Your task to perform on an android device: Open CNN.com Image 0: 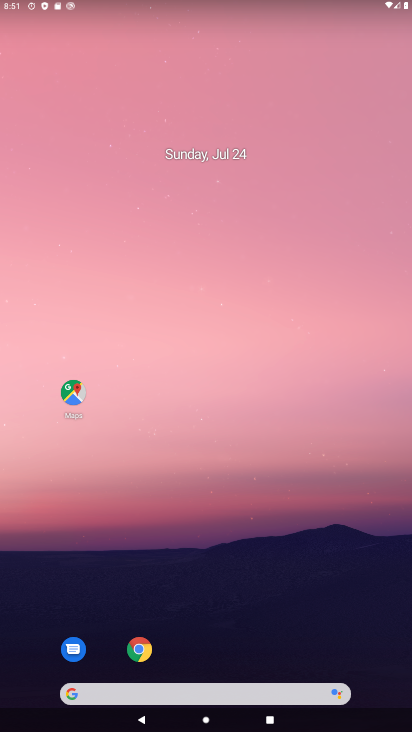
Step 0: click (120, 688)
Your task to perform on an android device: Open CNN.com Image 1: 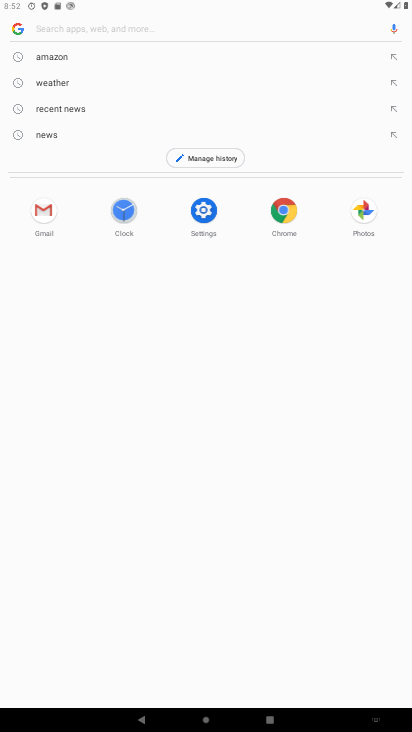
Step 1: type "CNN.com"
Your task to perform on an android device: Open CNN.com Image 2: 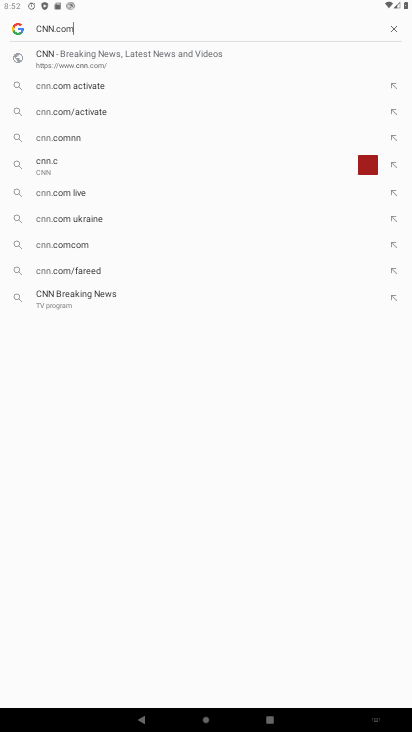
Step 2: type ""
Your task to perform on an android device: Open CNN.com Image 3: 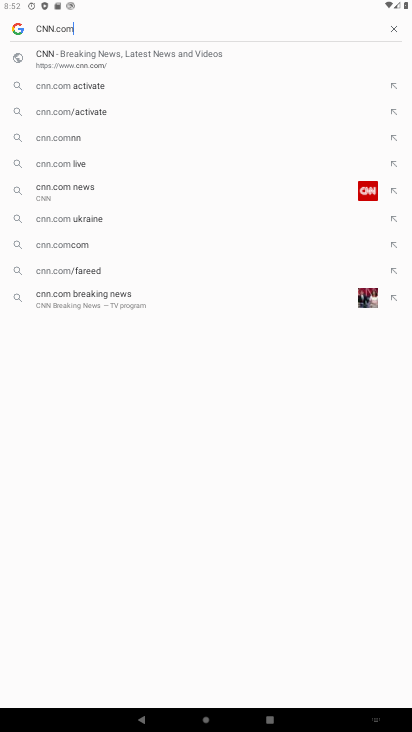
Step 3: click (49, 54)
Your task to perform on an android device: Open CNN.com Image 4: 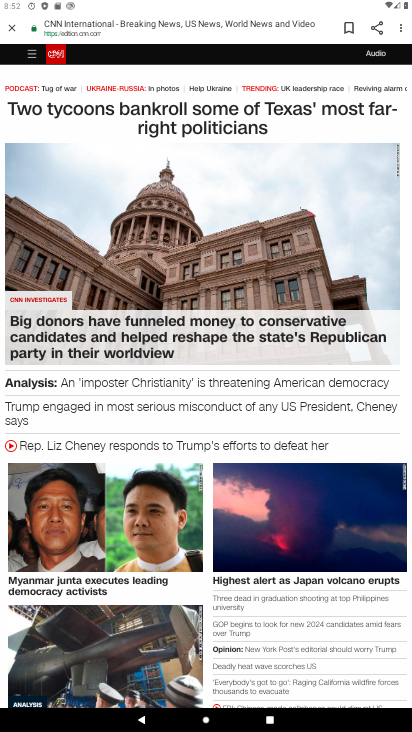
Step 4: task complete